Your task to perform on an android device: create a new album in the google photos Image 0: 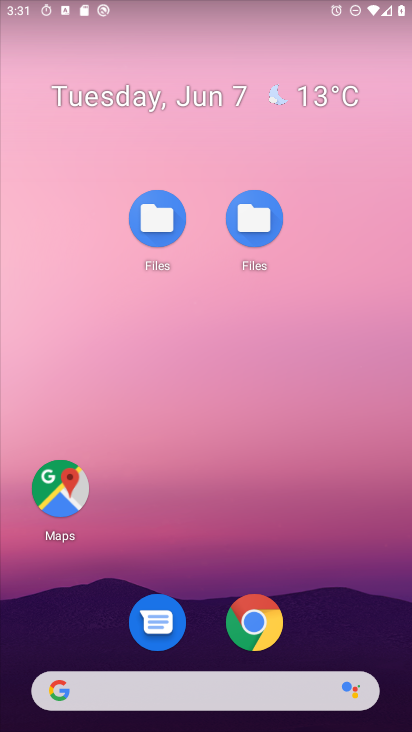
Step 0: drag from (330, 596) to (183, 123)
Your task to perform on an android device: create a new album in the google photos Image 1: 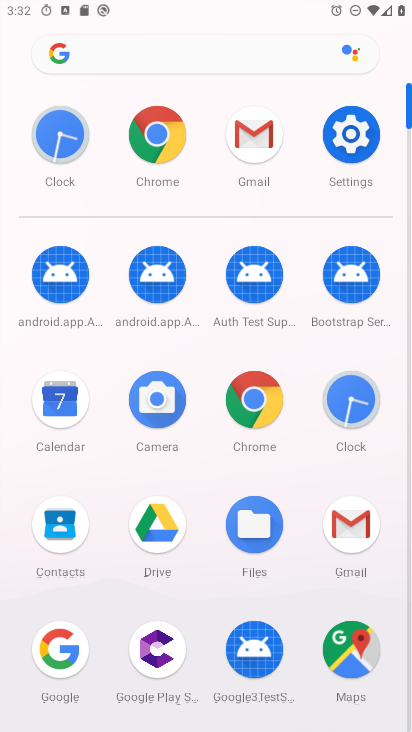
Step 1: drag from (308, 617) to (166, 203)
Your task to perform on an android device: create a new album in the google photos Image 2: 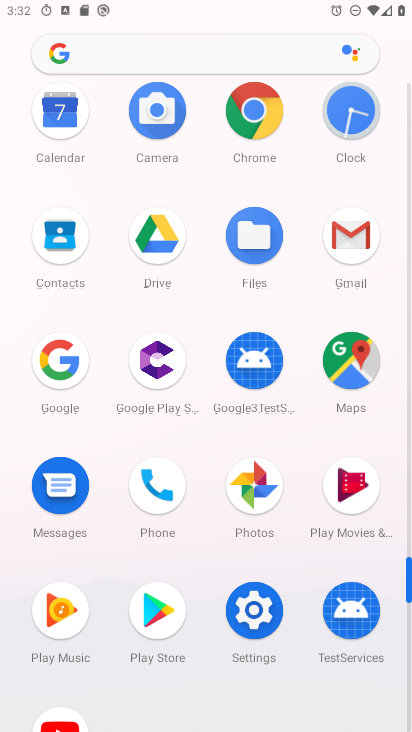
Step 2: click (251, 495)
Your task to perform on an android device: create a new album in the google photos Image 3: 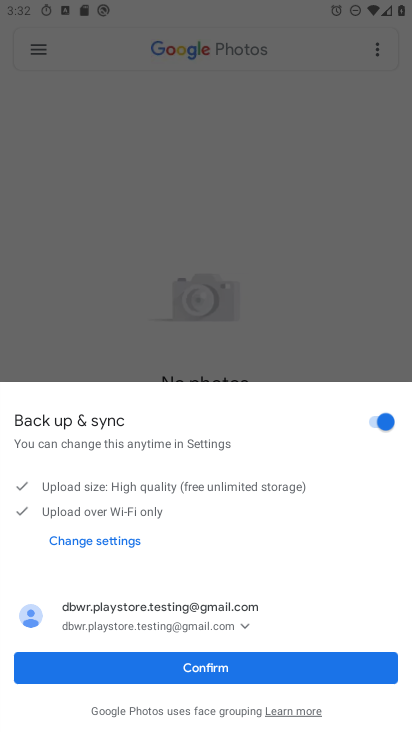
Step 3: click (261, 671)
Your task to perform on an android device: create a new album in the google photos Image 4: 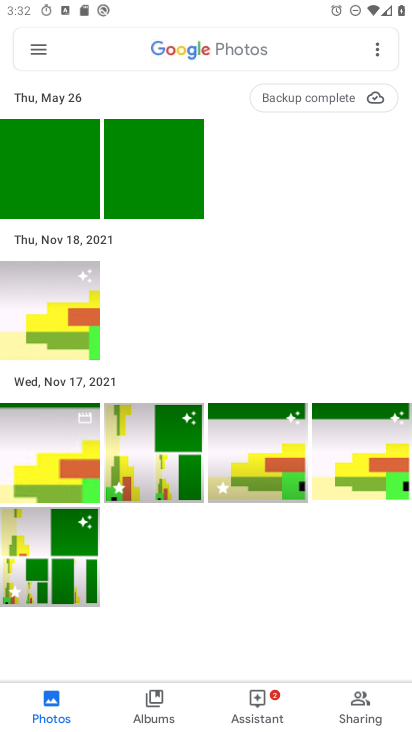
Step 4: click (377, 43)
Your task to perform on an android device: create a new album in the google photos Image 5: 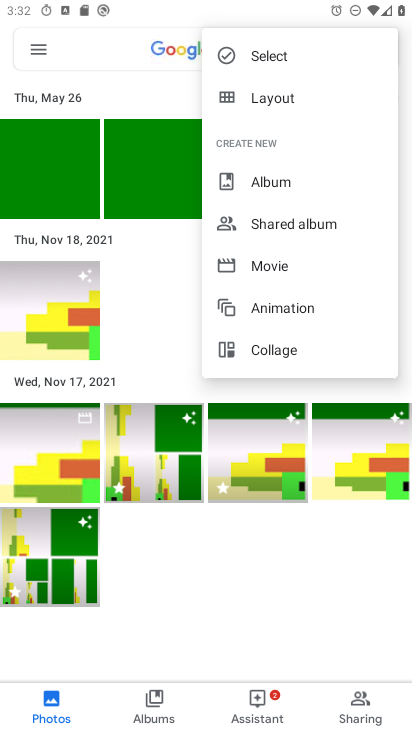
Step 5: click (267, 175)
Your task to perform on an android device: create a new album in the google photos Image 6: 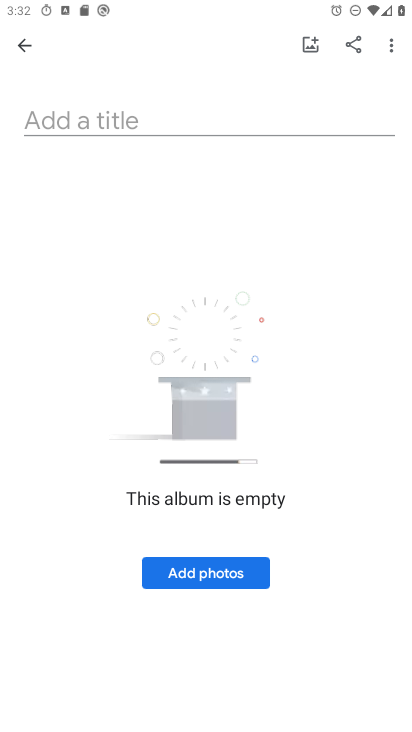
Step 6: click (165, 107)
Your task to perform on an android device: create a new album in the google photos Image 7: 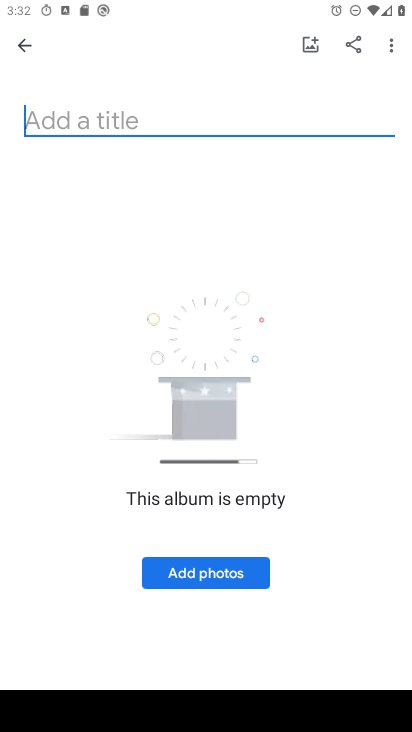
Step 7: type "vgfhhfhj"
Your task to perform on an android device: create a new album in the google photos Image 8: 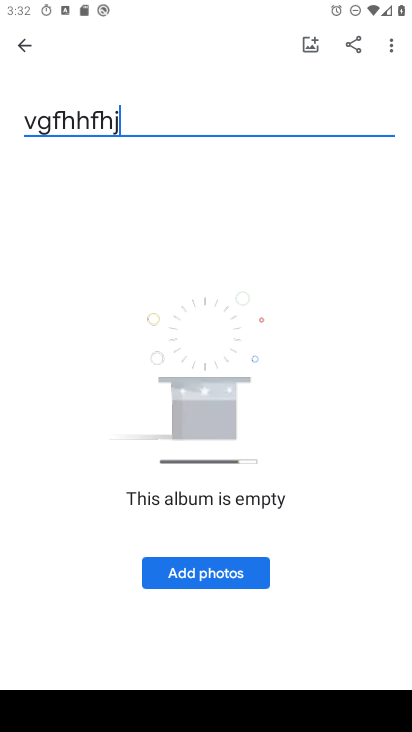
Step 8: click (183, 567)
Your task to perform on an android device: create a new album in the google photos Image 9: 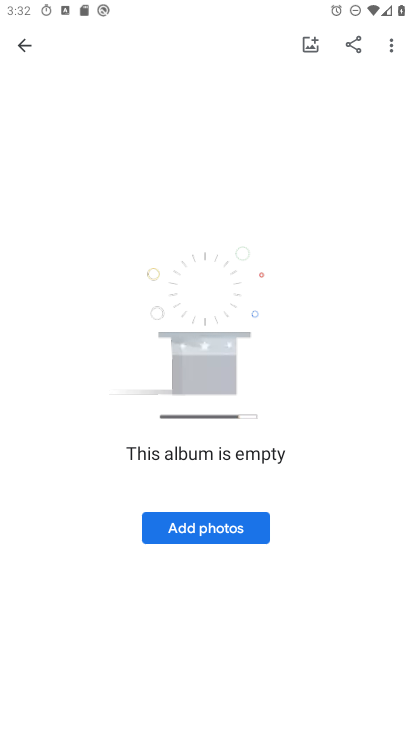
Step 9: click (212, 526)
Your task to perform on an android device: create a new album in the google photos Image 10: 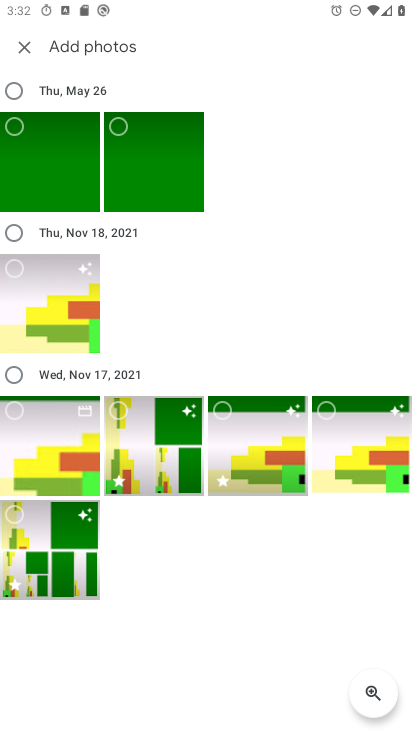
Step 10: click (121, 119)
Your task to perform on an android device: create a new album in the google photos Image 11: 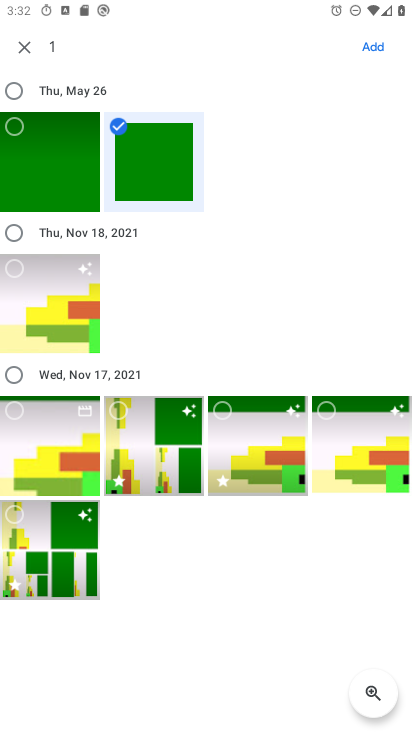
Step 11: click (16, 268)
Your task to perform on an android device: create a new album in the google photos Image 12: 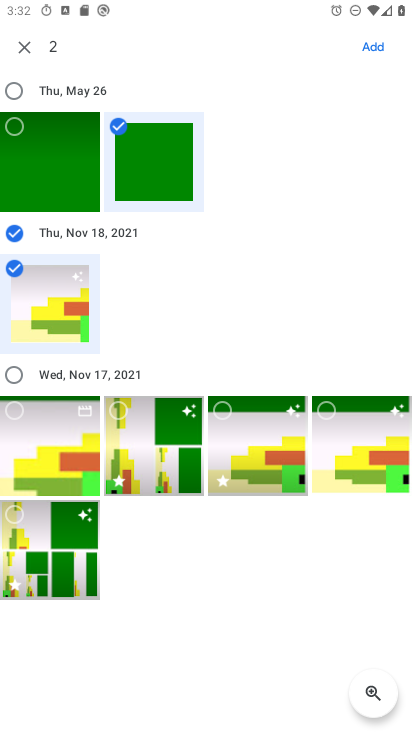
Step 12: click (379, 47)
Your task to perform on an android device: create a new album in the google photos Image 13: 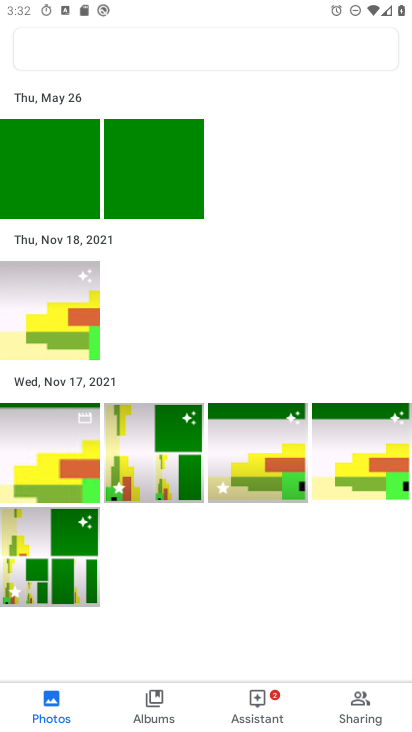
Step 13: task complete